Your task to perform on an android device: Open the map Image 0: 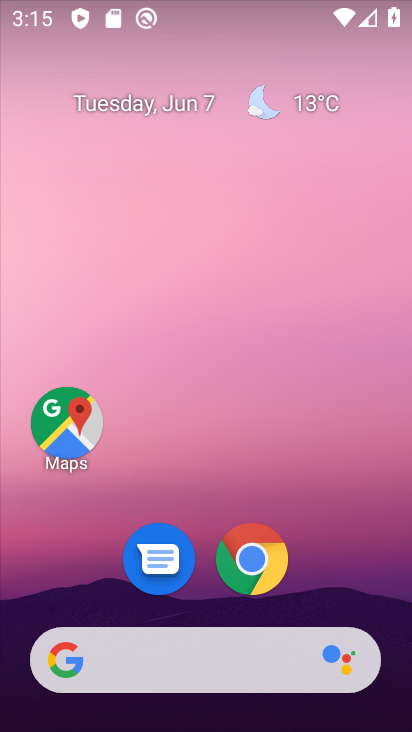
Step 0: drag from (199, 725) to (196, 109)
Your task to perform on an android device: Open the map Image 1: 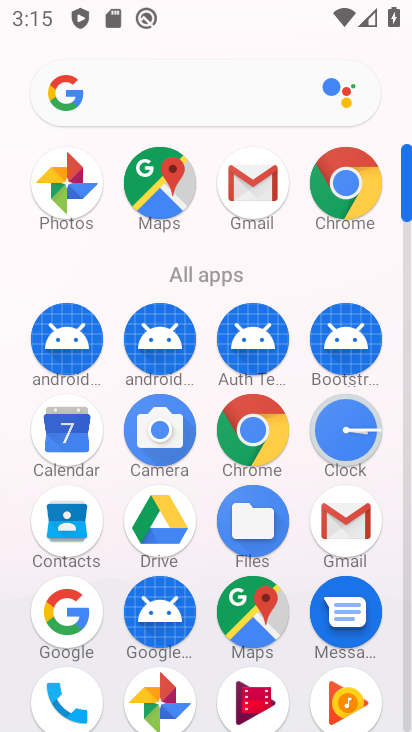
Step 1: click (249, 614)
Your task to perform on an android device: Open the map Image 2: 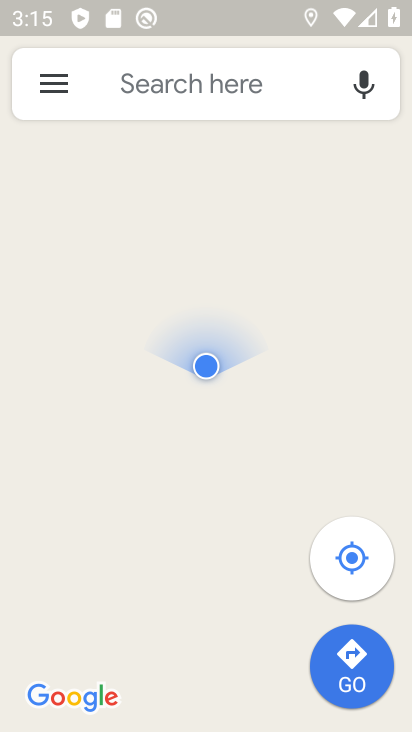
Step 2: task complete